Your task to perform on an android device: turn off improve location accuracy Image 0: 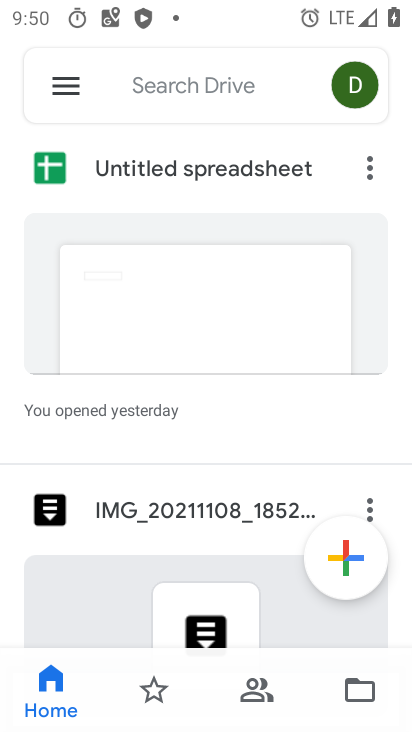
Step 0: press back button
Your task to perform on an android device: turn off improve location accuracy Image 1: 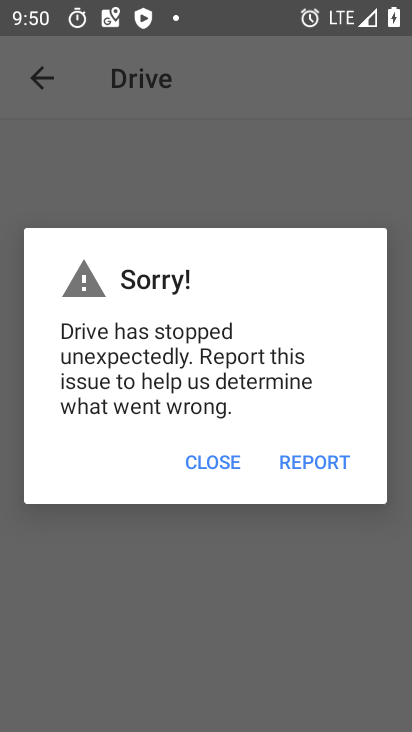
Step 1: press home button
Your task to perform on an android device: turn off improve location accuracy Image 2: 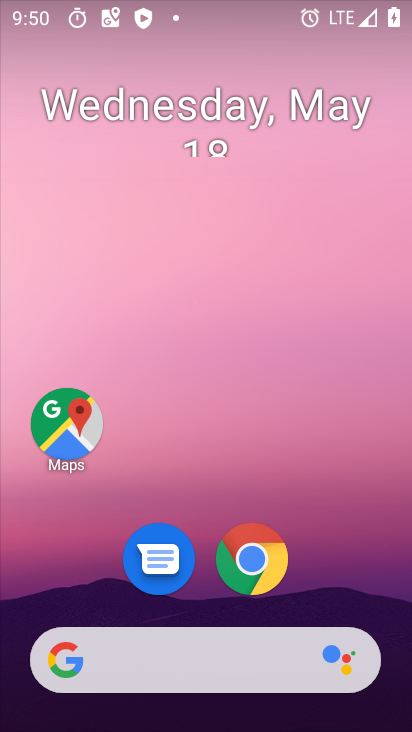
Step 2: drag from (354, 528) to (267, 13)
Your task to perform on an android device: turn off improve location accuracy Image 3: 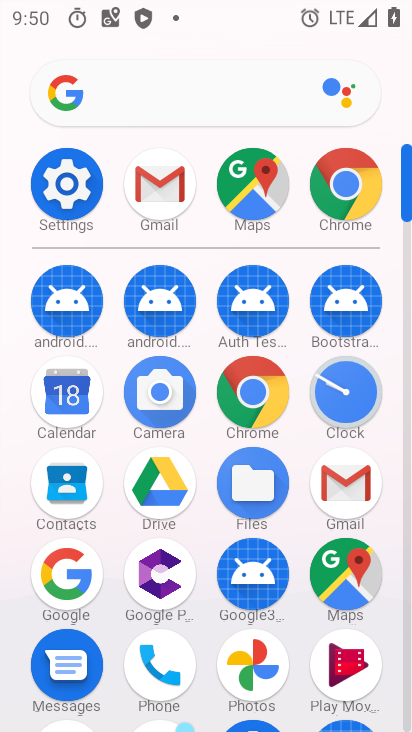
Step 3: drag from (20, 471) to (13, 187)
Your task to perform on an android device: turn off improve location accuracy Image 4: 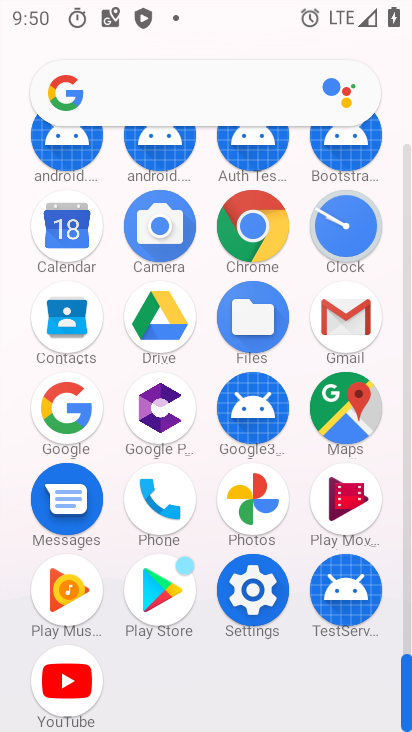
Step 4: click (253, 587)
Your task to perform on an android device: turn off improve location accuracy Image 5: 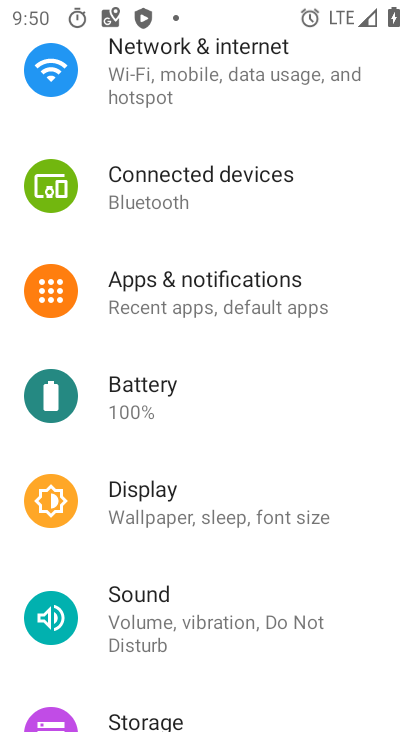
Step 5: drag from (258, 458) to (258, 120)
Your task to perform on an android device: turn off improve location accuracy Image 6: 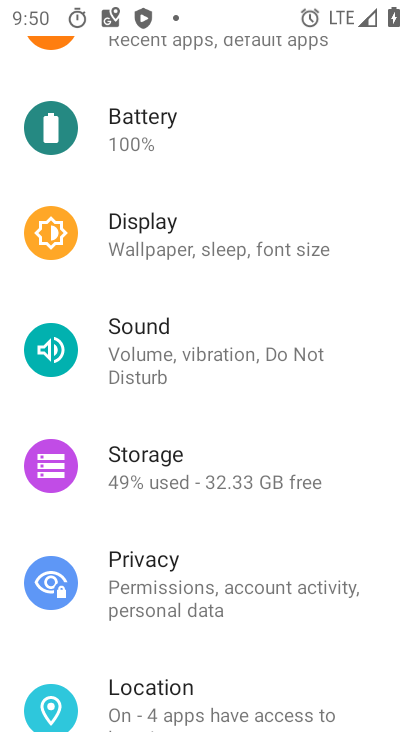
Step 6: drag from (280, 628) to (277, 219)
Your task to perform on an android device: turn off improve location accuracy Image 7: 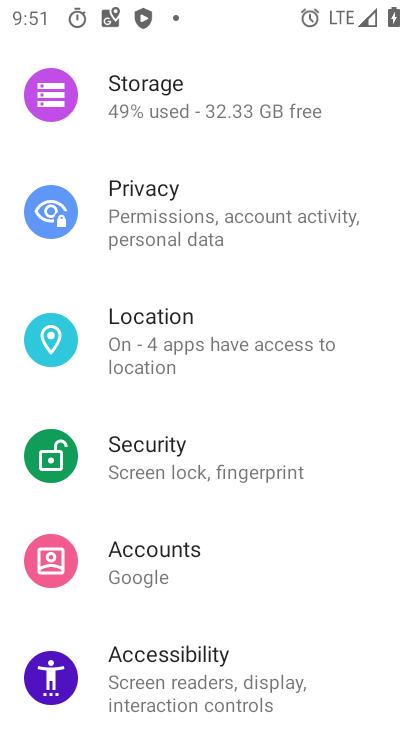
Step 7: click (174, 330)
Your task to perform on an android device: turn off improve location accuracy Image 8: 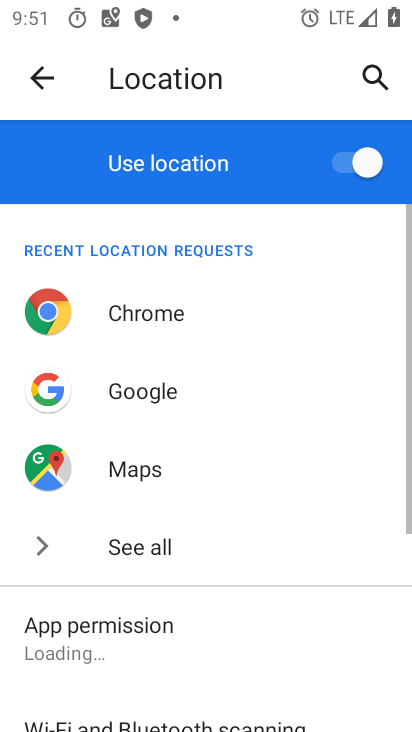
Step 8: drag from (223, 628) to (292, 218)
Your task to perform on an android device: turn off improve location accuracy Image 9: 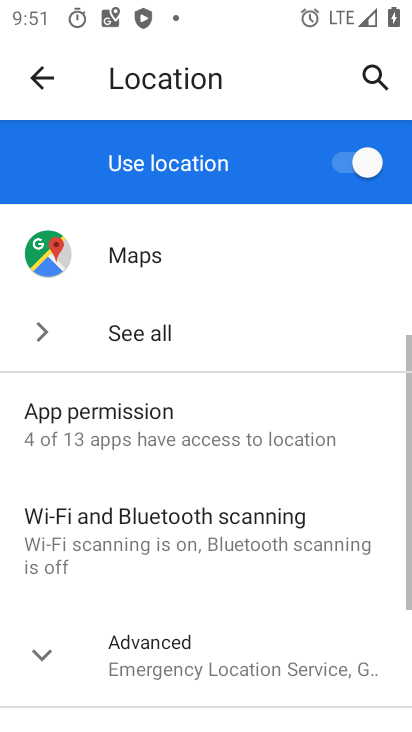
Step 9: click (109, 635)
Your task to perform on an android device: turn off improve location accuracy Image 10: 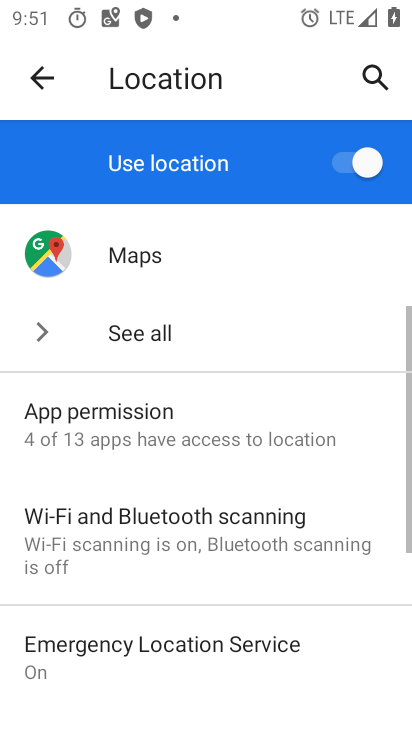
Step 10: drag from (237, 577) to (262, 153)
Your task to perform on an android device: turn off improve location accuracy Image 11: 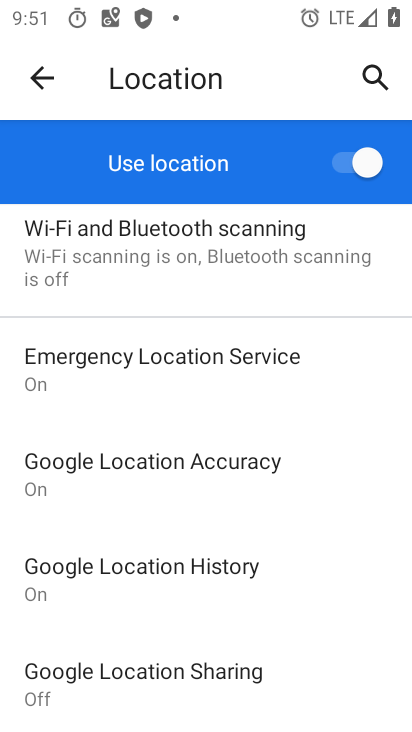
Step 11: click (233, 436)
Your task to perform on an android device: turn off improve location accuracy Image 12: 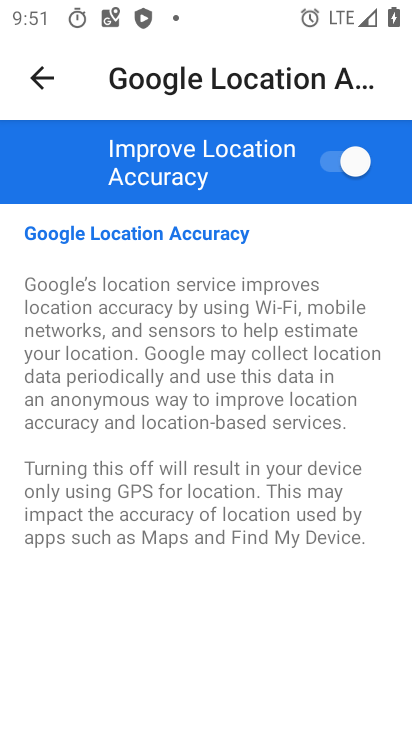
Step 12: click (342, 165)
Your task to perform on an android device: turn off improve location accuracy Image 13: 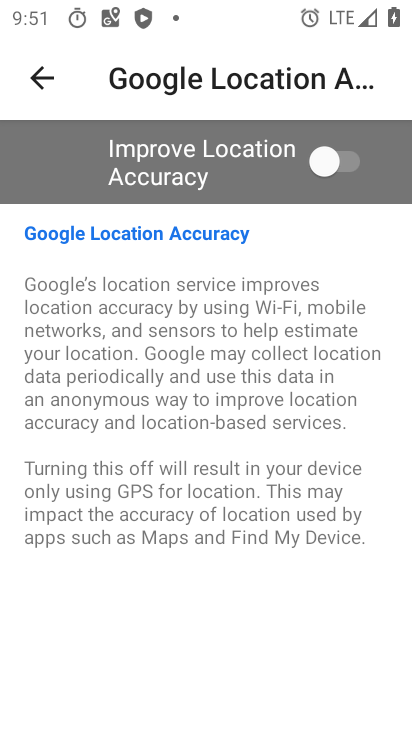
Step 13: task complete